Your task to perform on an android device: check google app version Image 0: 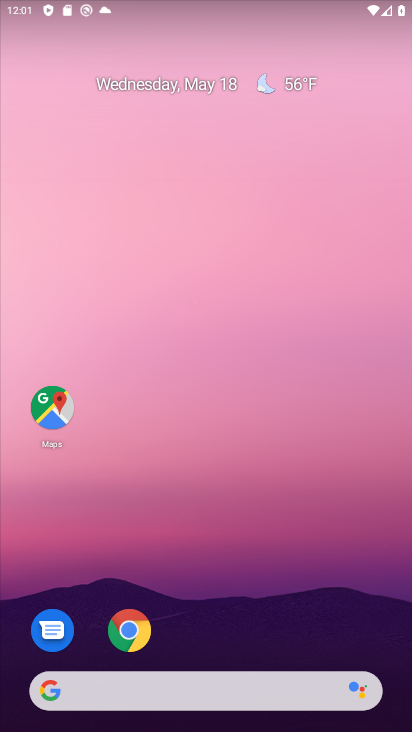
Step 0: drag from (227, 610) to (257, 216)
Your task to perform on an android device: check google app version Image 1: 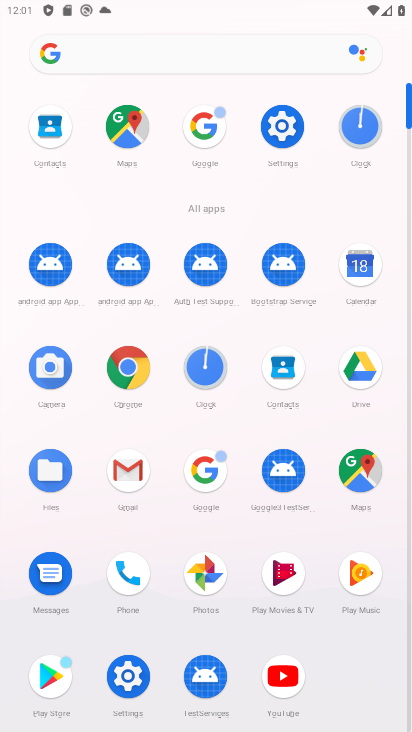
Step 1: click (207, 473)
Your task to perform on an android device: check google app version Image 2: 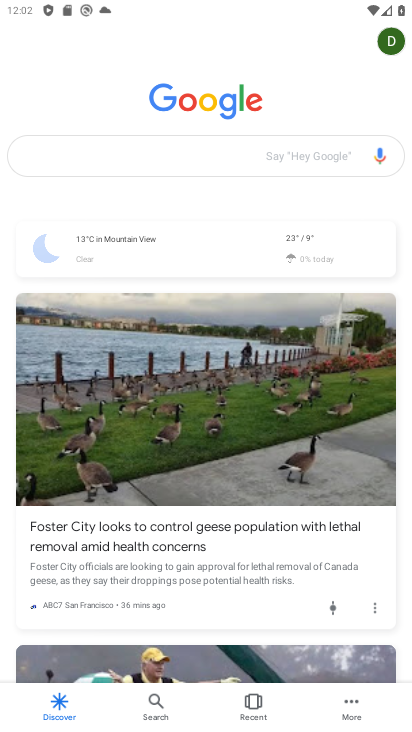
Step 2: click (343, 697)
Your task to perform on an android device: check google app version Image 3: 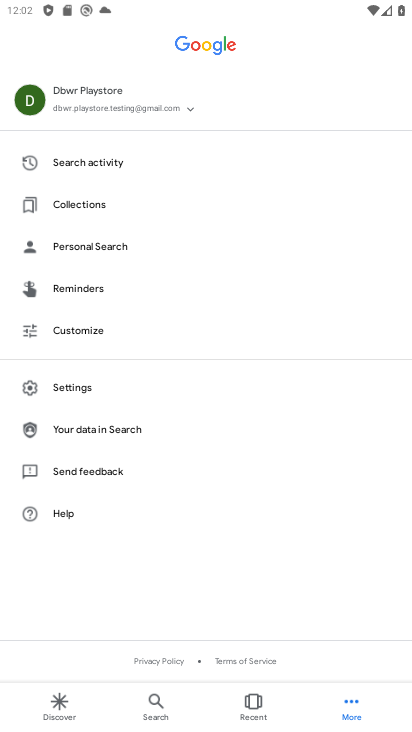
Step 3: click (127, 387)
Your task to perform on an android device: check google app version Image 4: 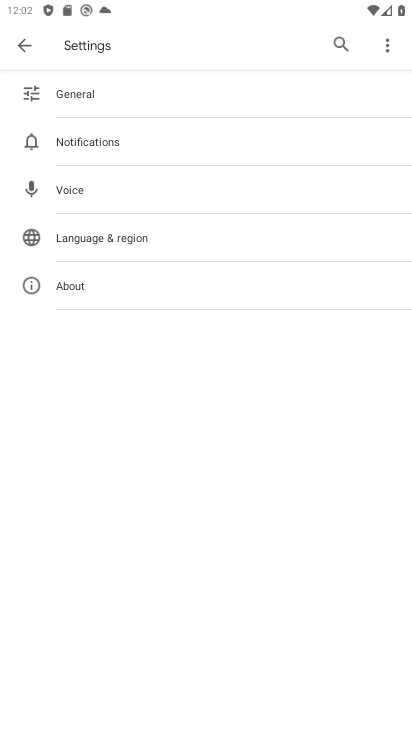
Step 4: click (97, 284)
Your task to perform on an android device: check google app version Image 5: 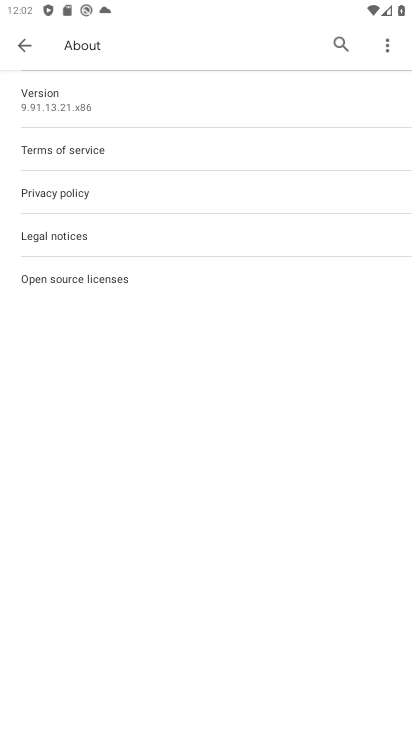
Step 5: click (113, 90)
Your task to perform on an android device: check google app version Image 6: 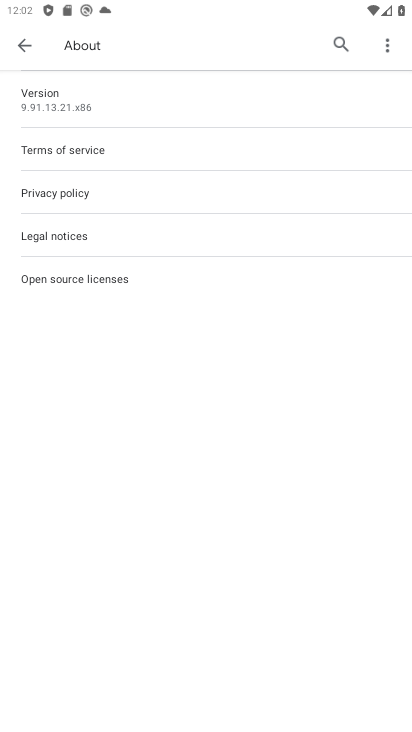
Step 6: click (113, 94)
Your task to perform on an android device: check google app version Image 7: 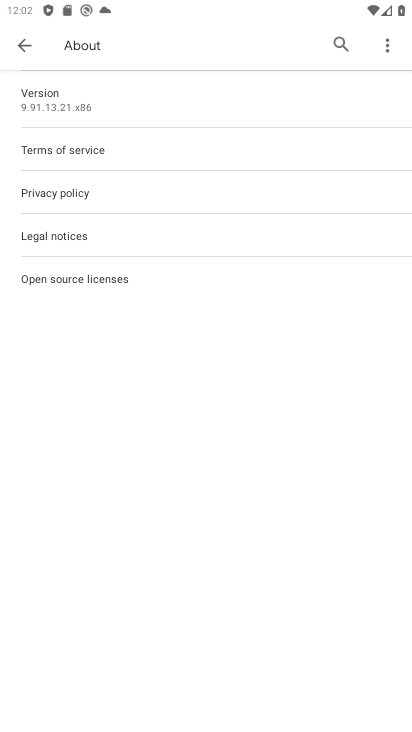
Step 7: click (113, 95)
Your task to perform on an android device: check google app version Image 8: 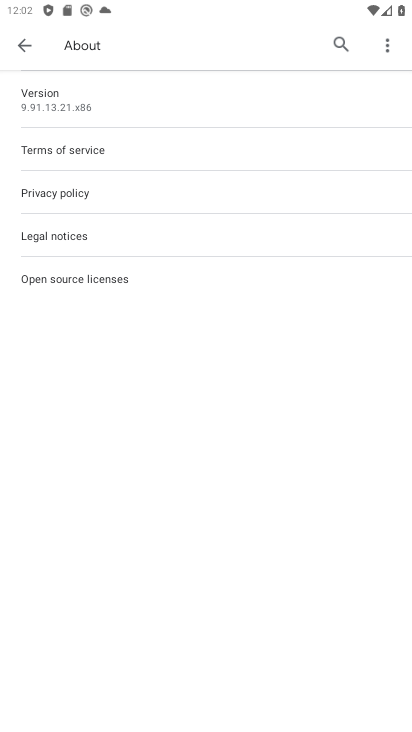
Step 8: task complete